Your task to perform on an android device: Search for "acer predator" on ebay.com, select the first entry, add it to the cart, then select checkout. Image 0: 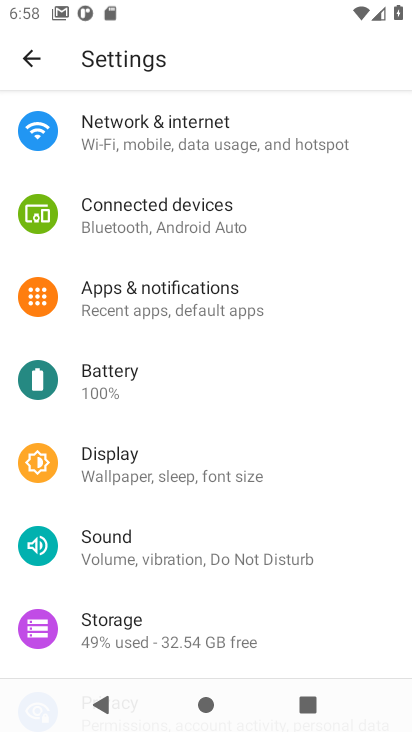
Step 0: press home button
Your task to perform on an android device: Search for "acer predator" on ebay.com, select the first entry, add it to the cart, then select checkout. Image 1: 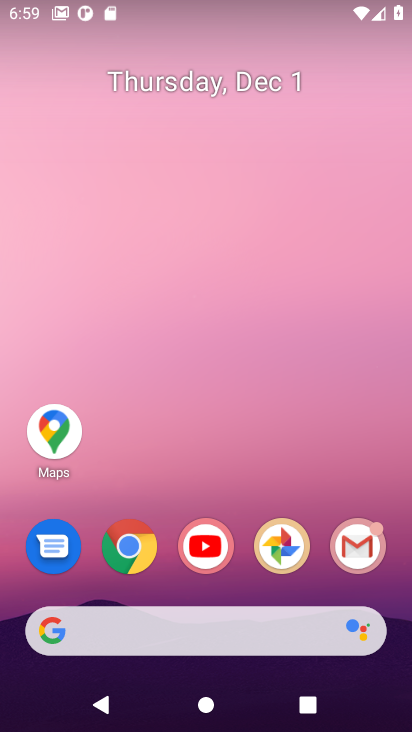
Step 1: click (126, 554)
Your task to perform on an android device: Search for "acer predator" on ebay.com, select the first entry, add it to the cart, then select checkout. Image 2: 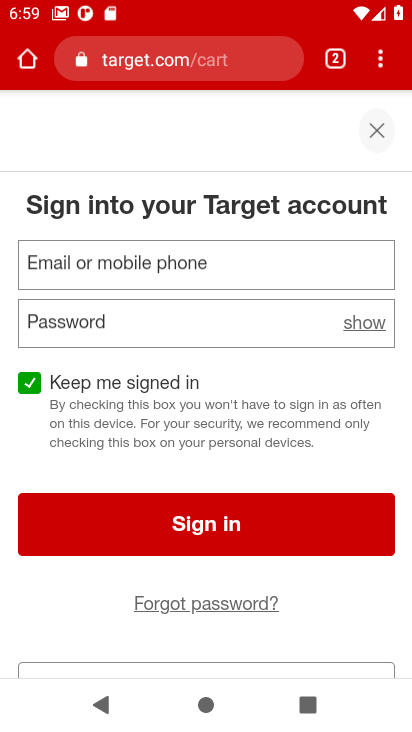
Step 2: click (135, 62)
Your task to perform on an android device: Search for "acer predator" on ebay.com, select the first entry, add it to the cart, then select checkout. Image 3: 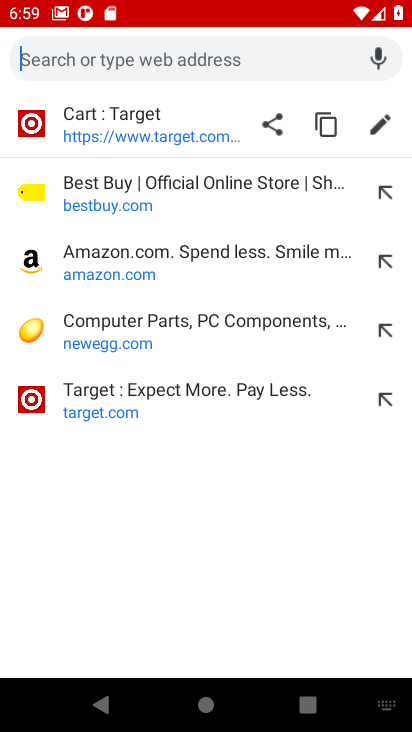
Step 3: type "ebay.com"
Your task to perform on an android device: Search for "acer predator" on ebay.com, select the first entry, add it to the cart, then select checkout. Image 4: 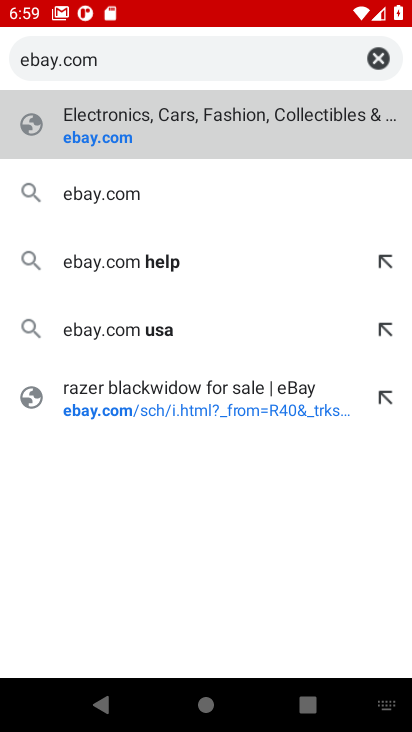
Step 4: click (80, 140)
Your task to perform on an android device: Search for "acer predator" on ebay.com, select the first entry, add it to the cart, then select checkout. Image 5: 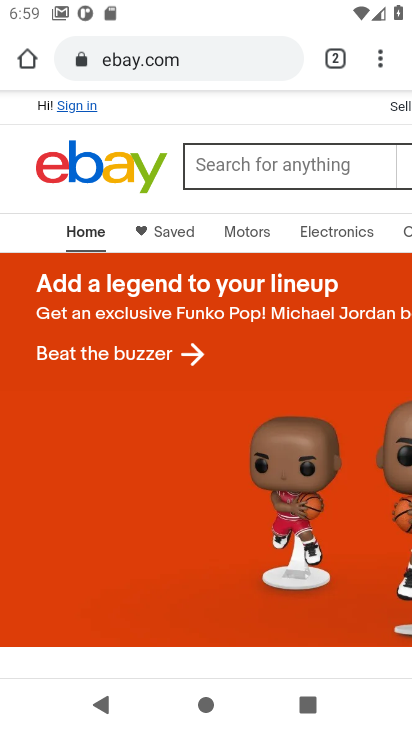
Step 5: click (247, 164)
Your task to perform on an android device: Search for "acer predator" on ebay.com, select the first entry, add it to the cart, then select checkout. Image 6: 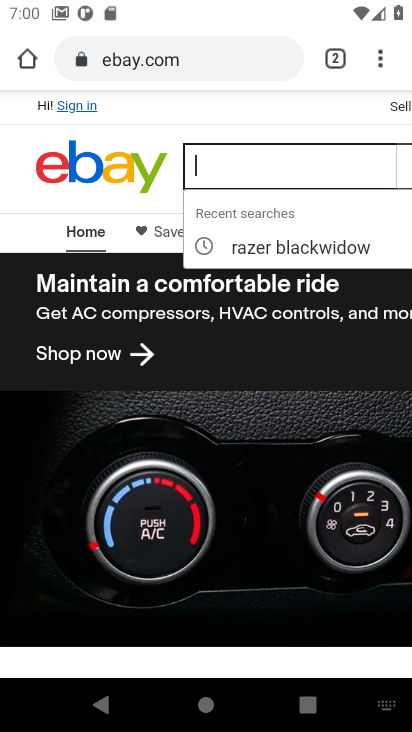
Step 6: type "acer predator"
Your task to perform on an android device: Search for "acer predator" on ebay.com, select the first entry, add it to the cart, then select checkout. Image 7: 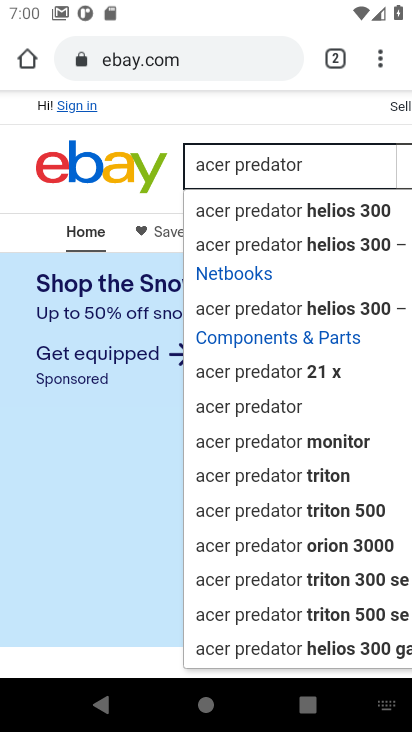
Step 7: click (238, 405)
Your task to perform on an android device: Search for "acer predator" on ebay.com, select the first entry, add it to the cart, then select checkout. Image 8: 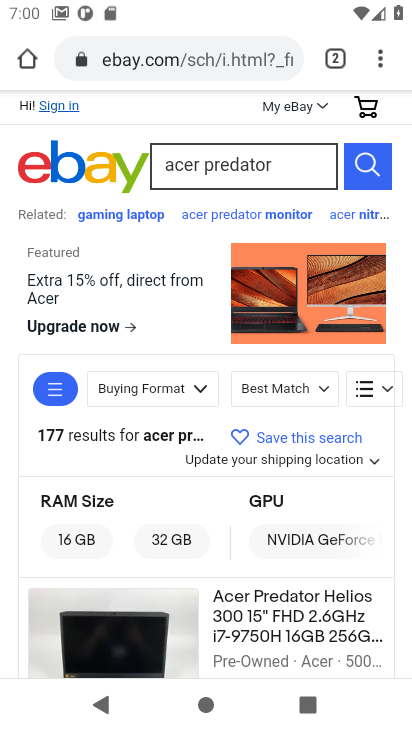
Step 8: drag from (191, 525) to (191, 222)
Your task to perform on an android device: Search for "acer predator" on ebay.com, select the first entry, add it to the cart, then select checkout. Image 9: 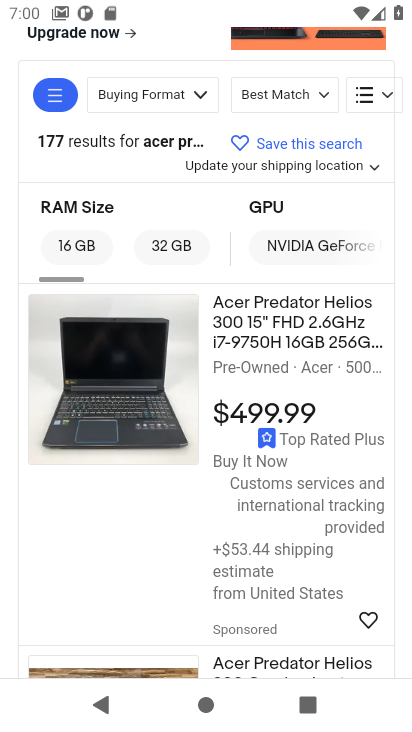
Step 9: click (232, 358)
Your task to perform on an android device: Search for "acer predator" on ebay.com, select the first entry, add it to the cart, then select checkout. Image 10: 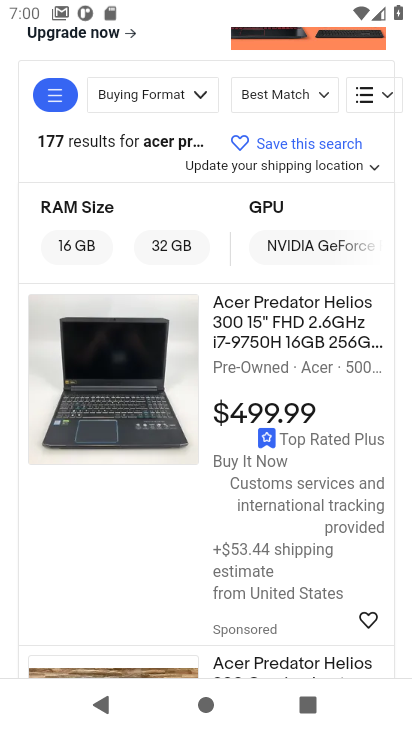
Step 10: click (278, 354)
Your task to perform on an android device: Search for "acer predator" on ebay.com, select the first entry, add it to the cart, then select checkout. Image 11: 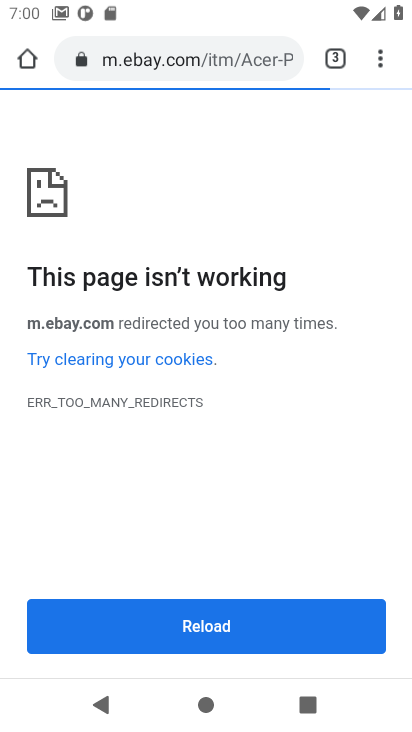
Step 11: task complete